Your task to perform on an android device: Search for a 3D printer on aliexpress. Image 0: 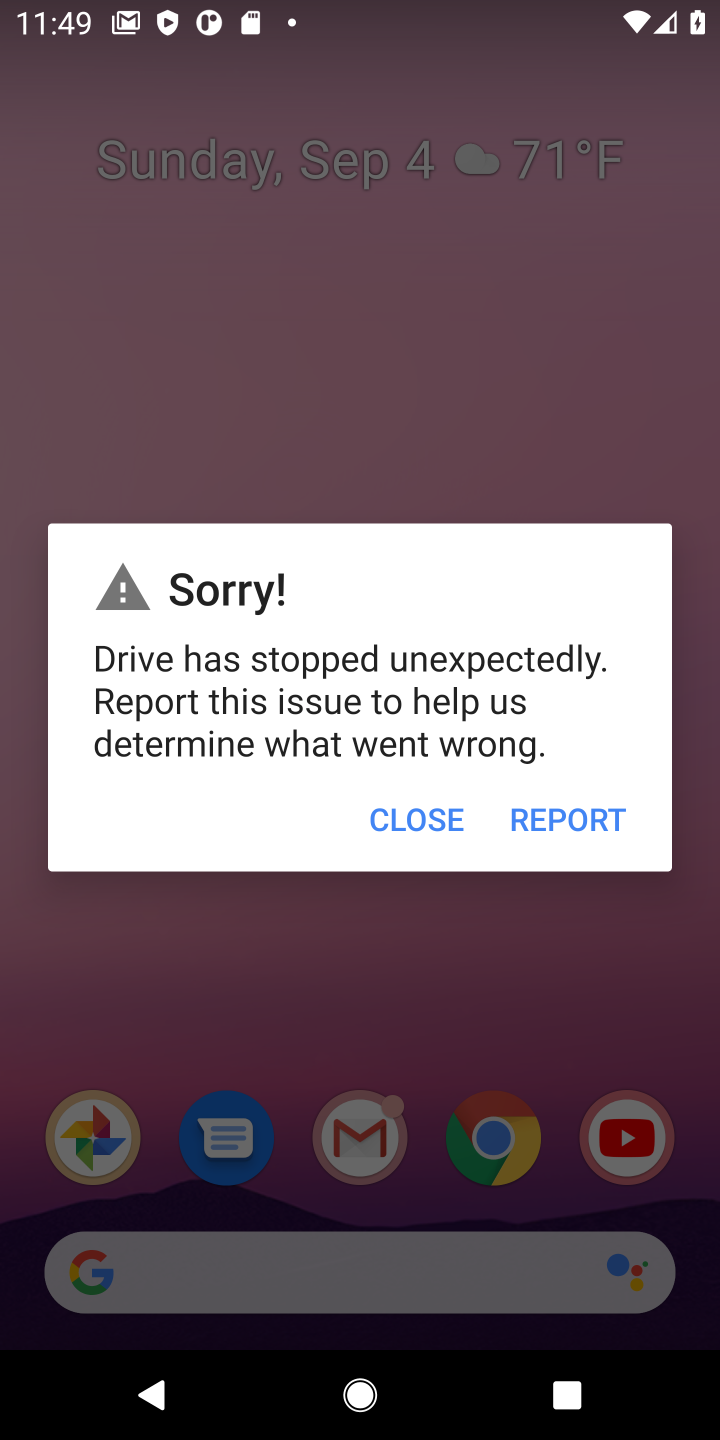
Step 0: press home button
Your task to perform on an android device: Search for a 3D printer on aliexpress. Image 1: 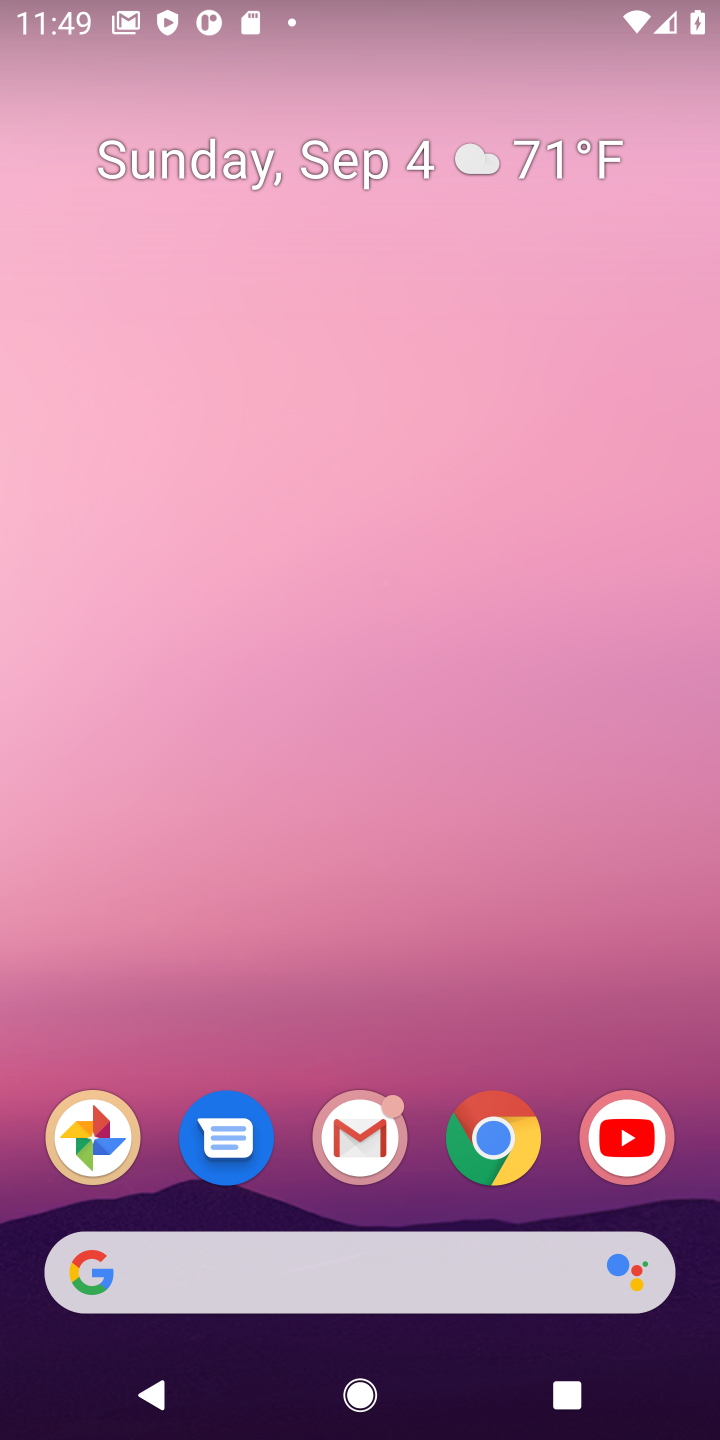
Step 1: click (519, 1184)
Your task to perform on an android device: Search for a 3D printer on aliexpress. Image 2: 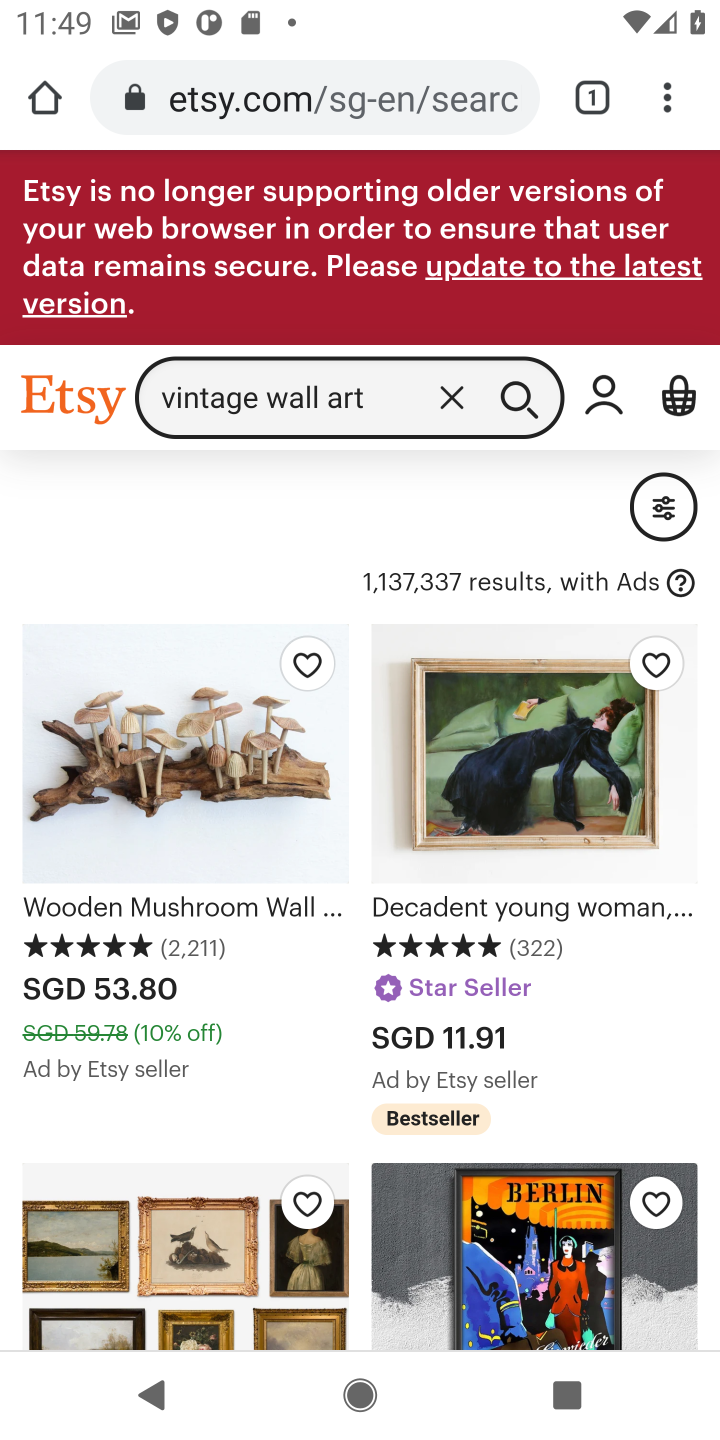
Step 2: click (377, 121)
Your task to perform on an android device: Search for a 3D printer on aliexpress. Image 3: 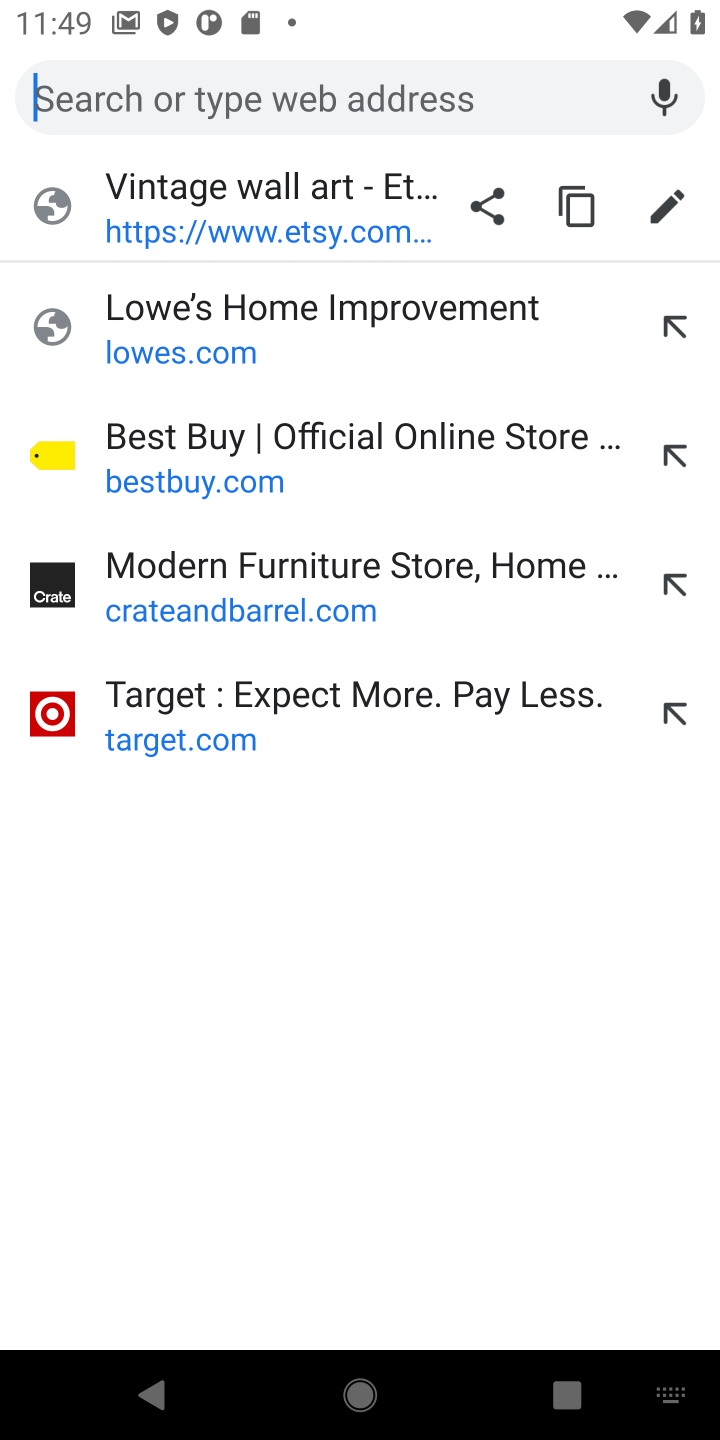
Step 3: type "aliexpress"
Your task to perform on an android device: Search for a 3D printer on aliexpress. Image 4: 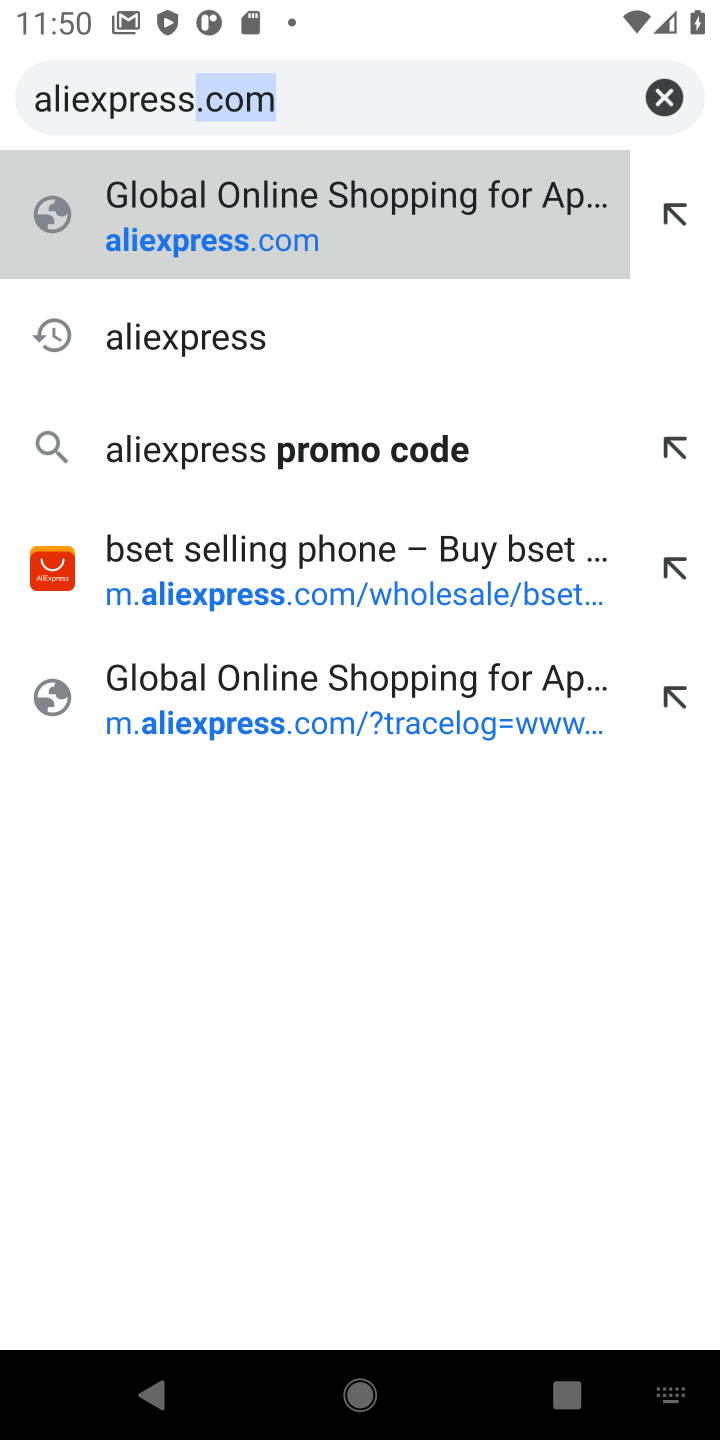
Step 4: click (369, 243)
Your task to perform on an android device: Search for a 3D printer on aliexpress. Image 5: 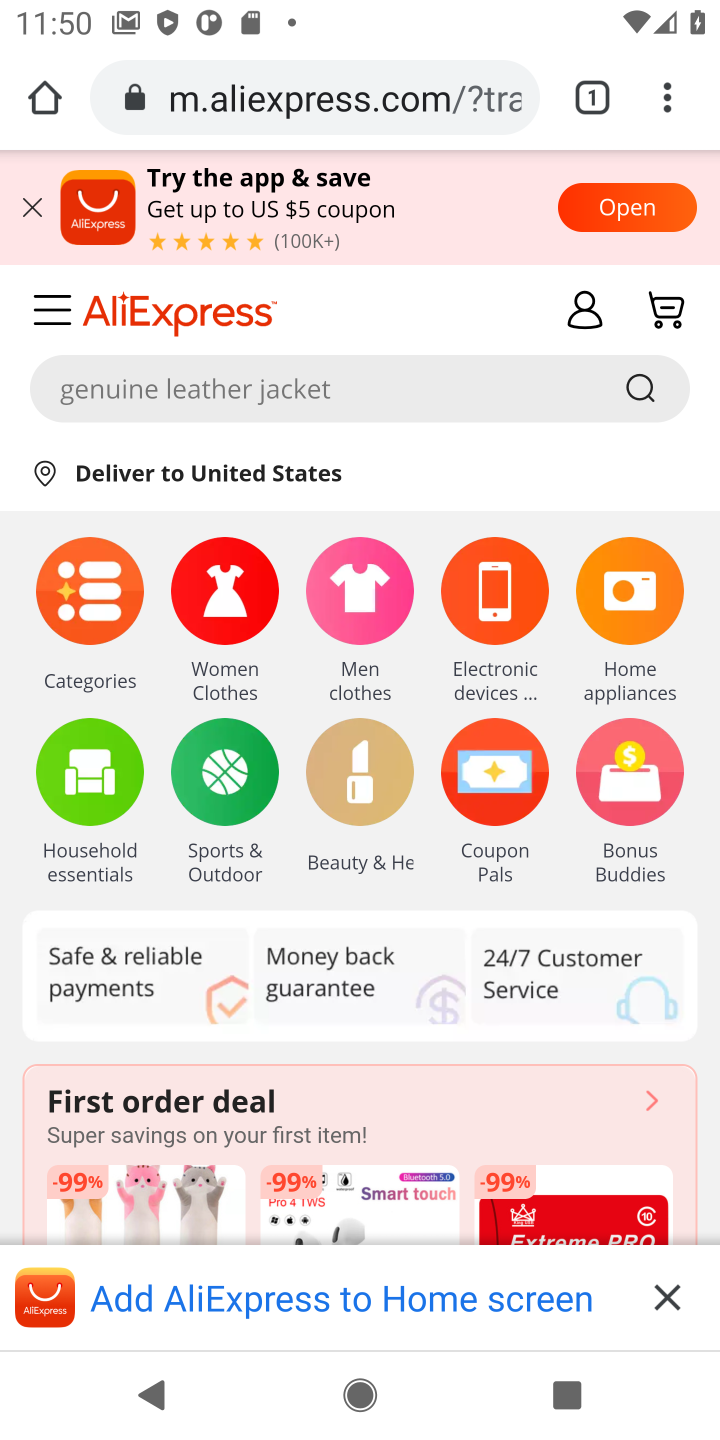
Step 5: click (456, 379)
Your task to perform on an android device: Search for a 3D printer on aliexpress. Image 6: 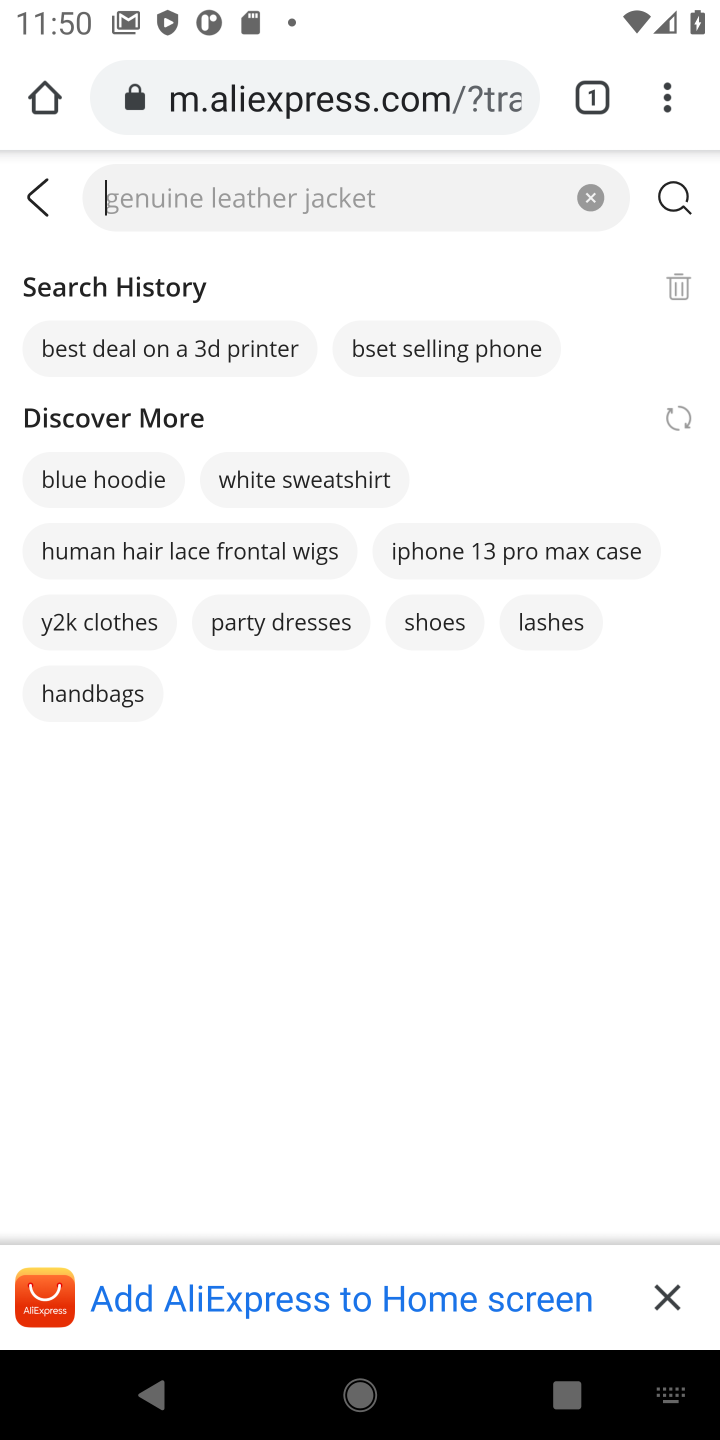
Step 6: type "3d printer"
Your task to perform on an android device: Search for a 3D printer on aliexpress. Image 7: 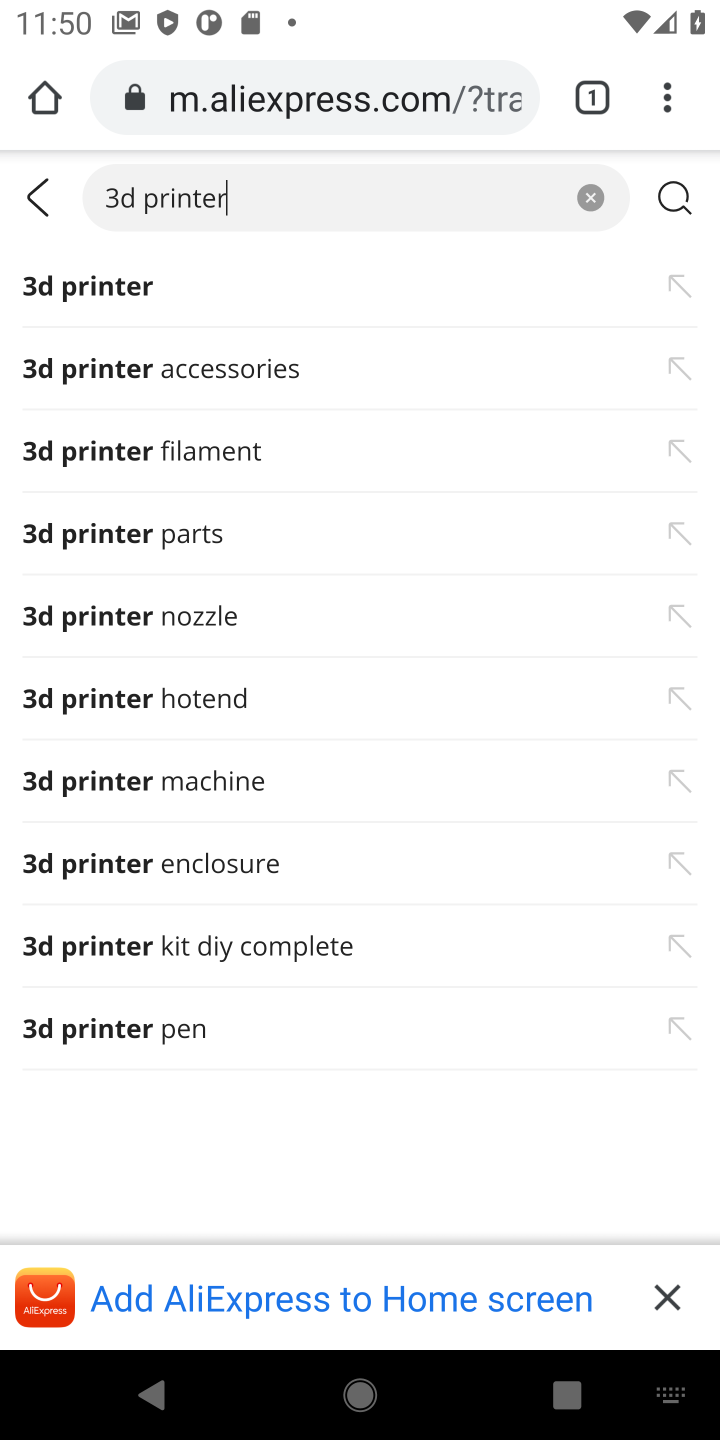
Step 7: click (276, 300)
Your task to perform on an android device: Search for a 3D printer on aliexpress. Image 8: 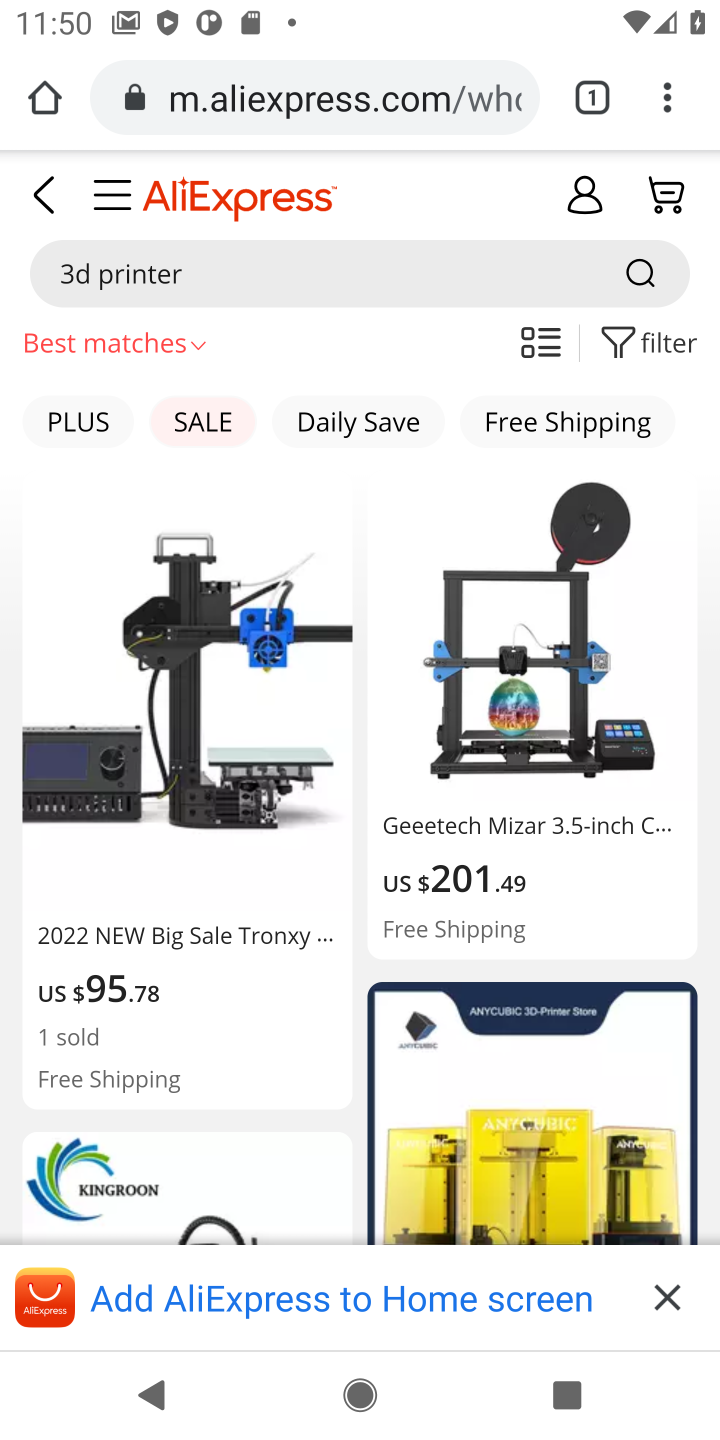
Step 8: task complete